Your task to perform on an android device: open app "NewsBreak: Local News & Alerts" (install if not already installed) and go to login screen Image 0: 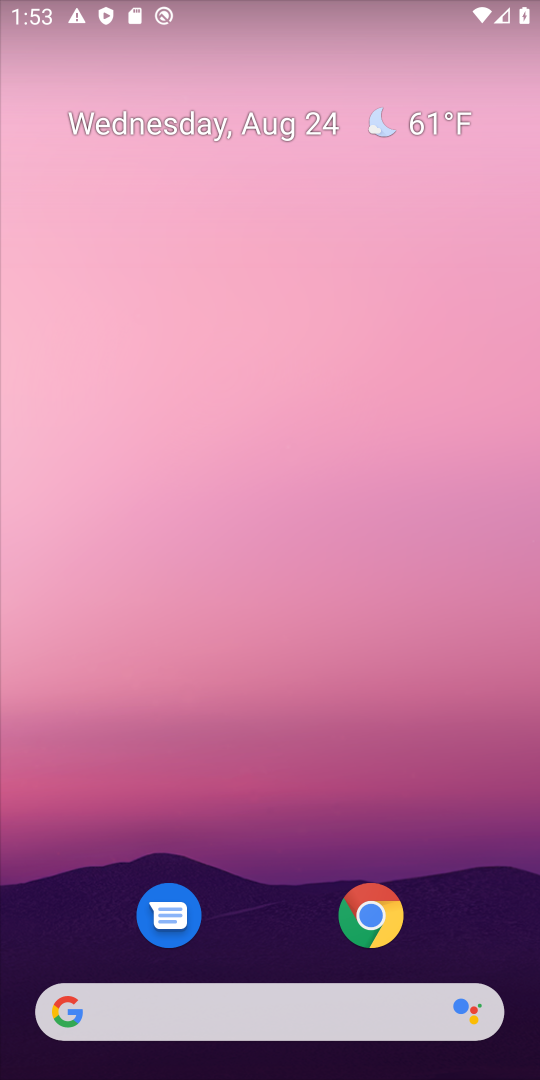
Step 0: drag from (268, 836) to (256, 298)
Your task to perform on an android device: open app "NewsBreak: Local News & Alerts" (install if not already installed) and go to login screen Image 1: 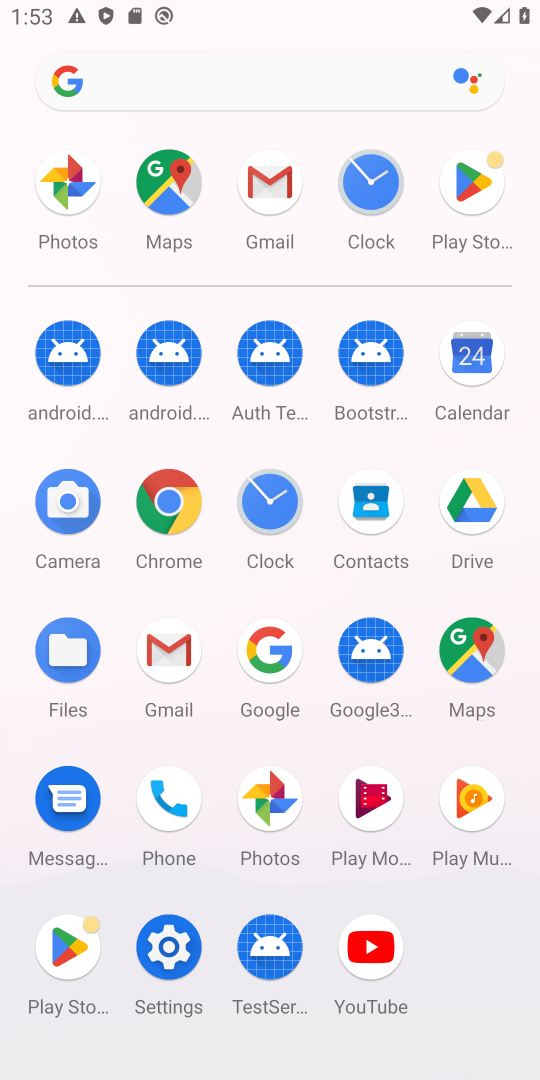
Step 1: click (472, 199)
Your task to perform on an android device: open app "NewsBreak: Local News & Alerts" (install if not already installed) and go to login screen Image 2: 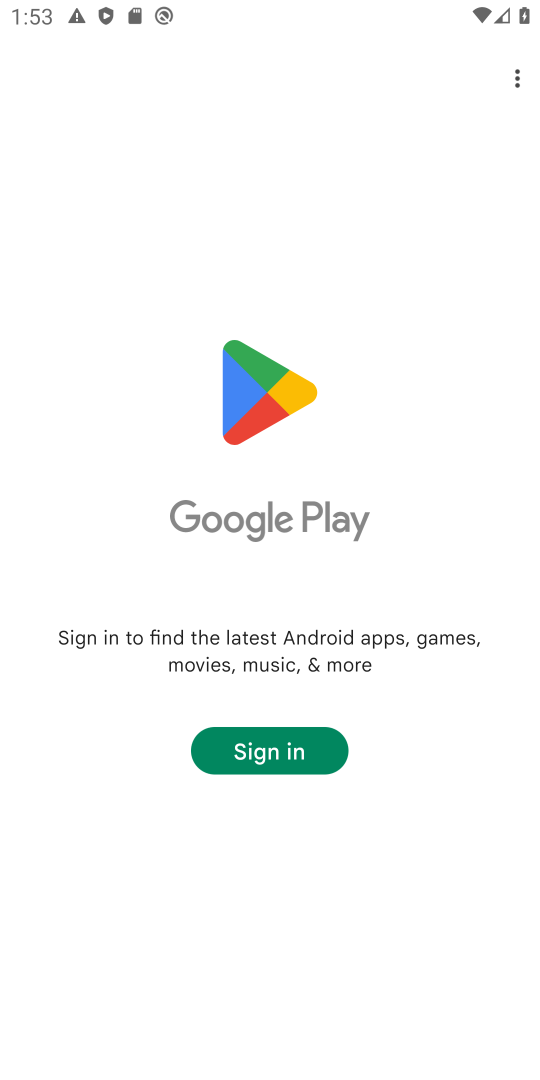
Step 2: task complete